Your task to perform on an android device: open app "Google Translate" (install if not already installed) Image 0: 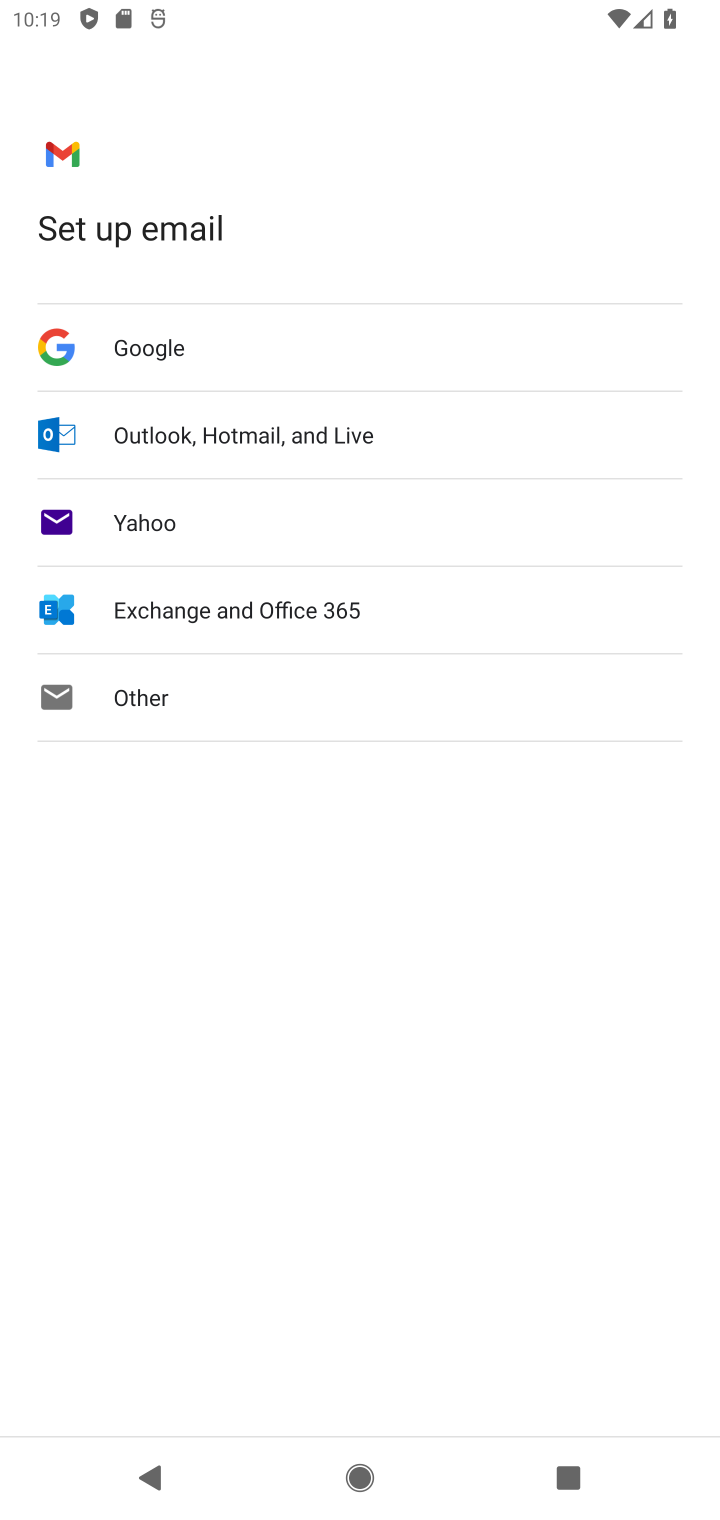
Step 0: press home button
Your task to perform on an android device: open app "Google Translate" (install if not already installed) Image 1: 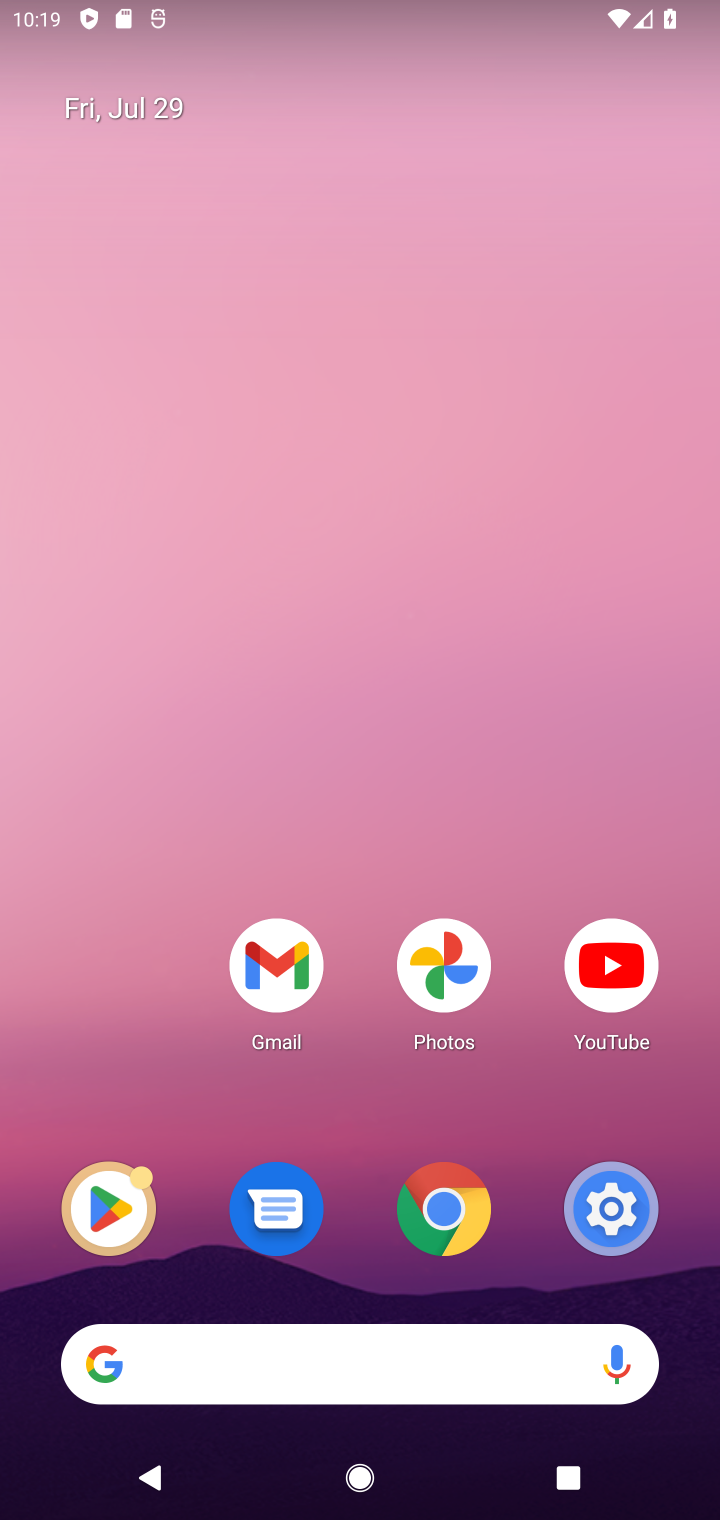
Step 1: drag from (512, 1116) to (391, 258)
Your task to perform on an android device: open app "Google Translate" (install if not already installed) Image 2: 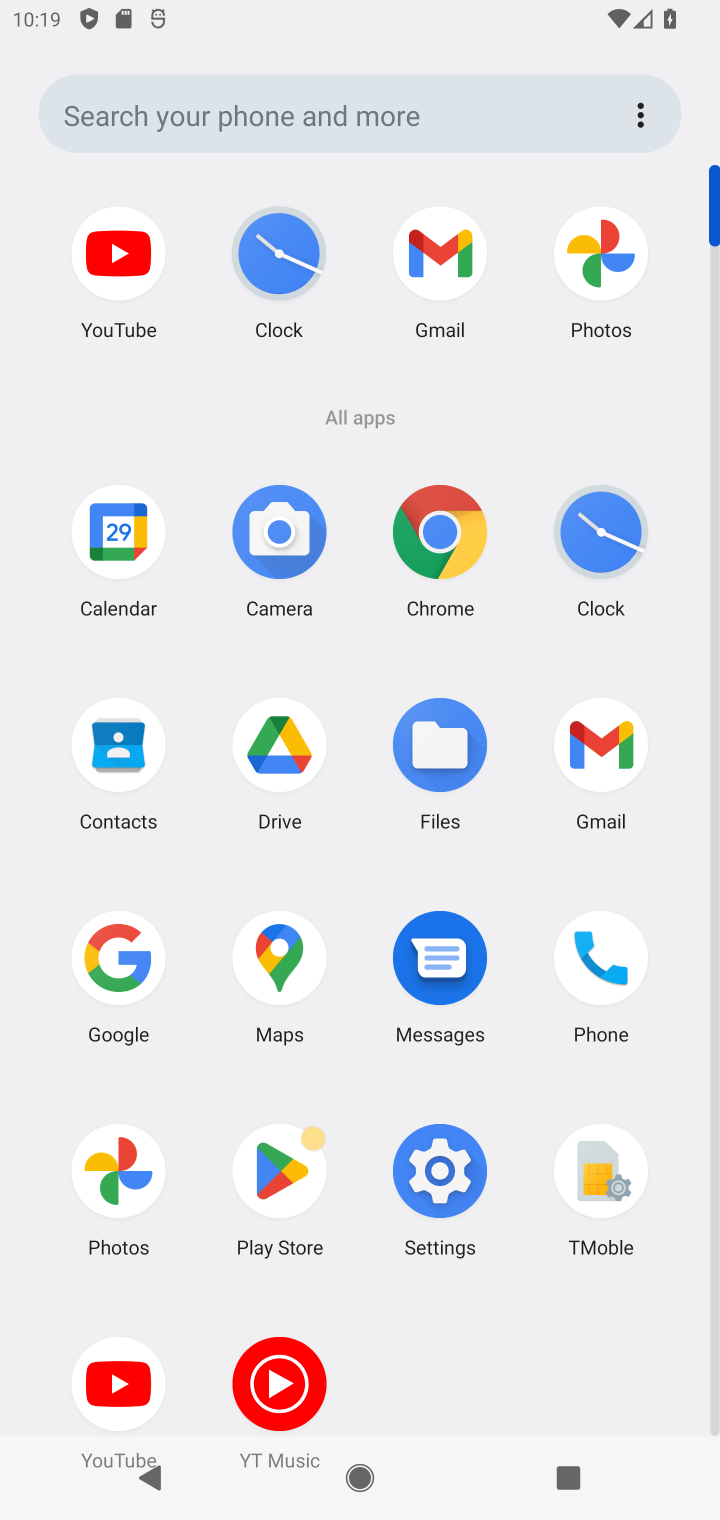
Step 2: click (277, 1166)
Your task to perform on an android device: open app "Google Translate" (install if not already installed) Image 3: 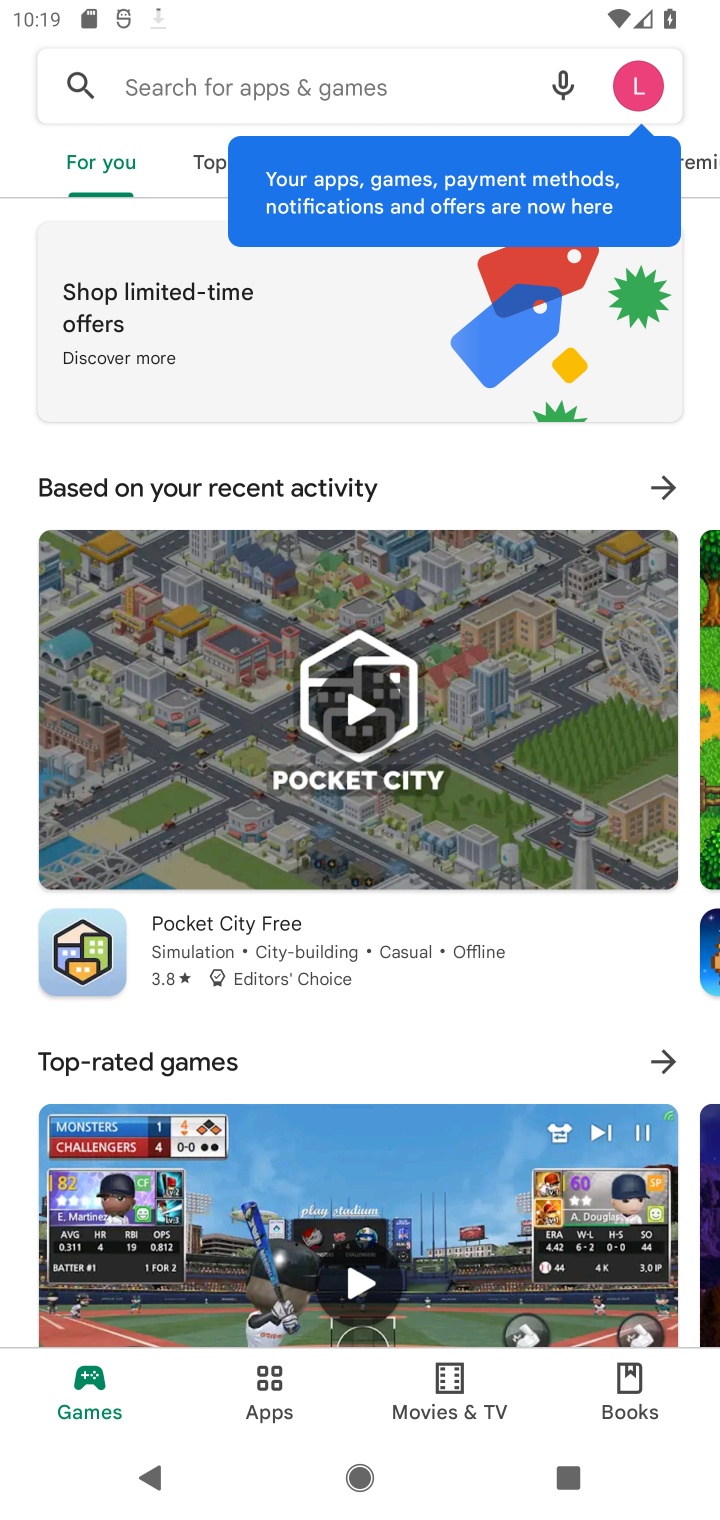
Step 3: click (397, 87)
Your task to perform on an android device: open app "Google Translate" (install if not already installed) Image 4: 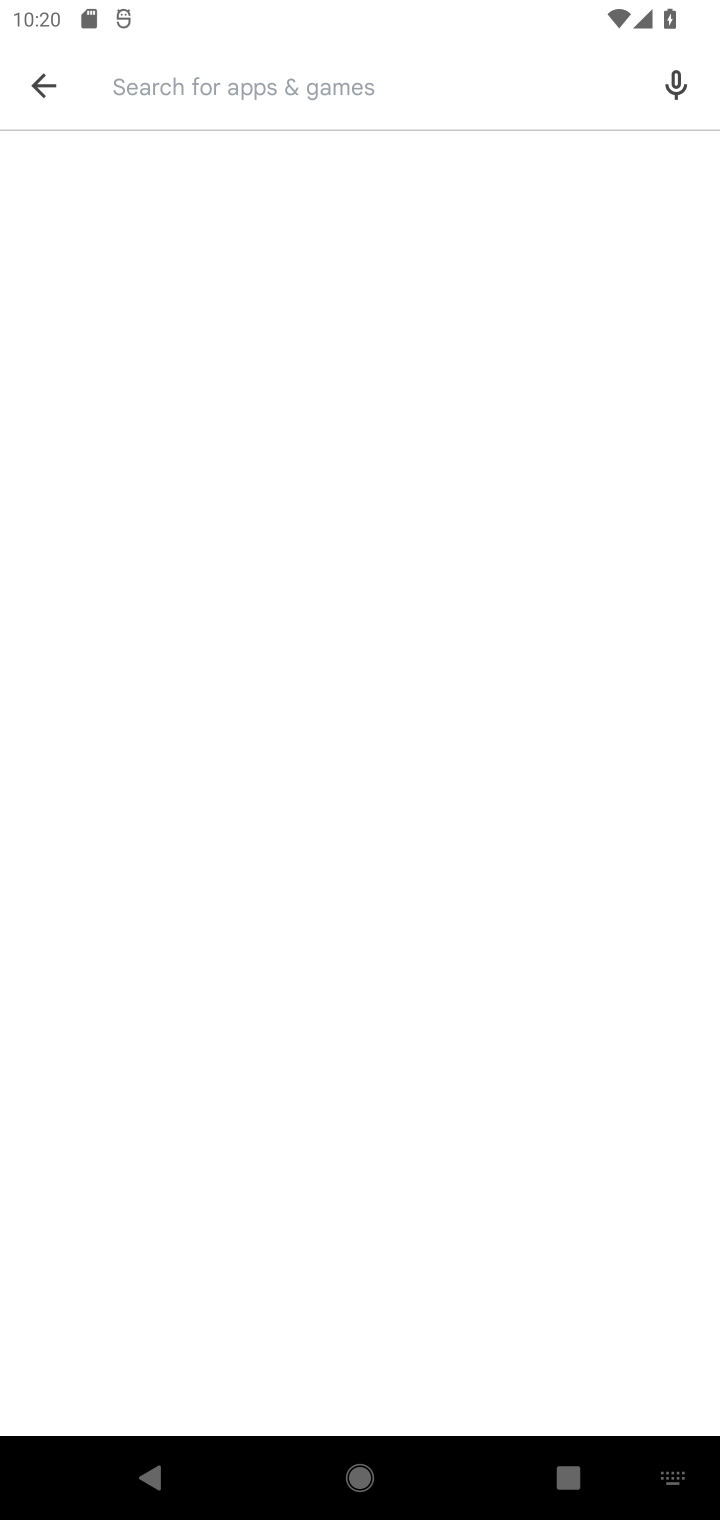
Step 4: type "Google Translate"
Your task to perform on an android device: open app "Google Translate" (install if not already installed) Image 5: 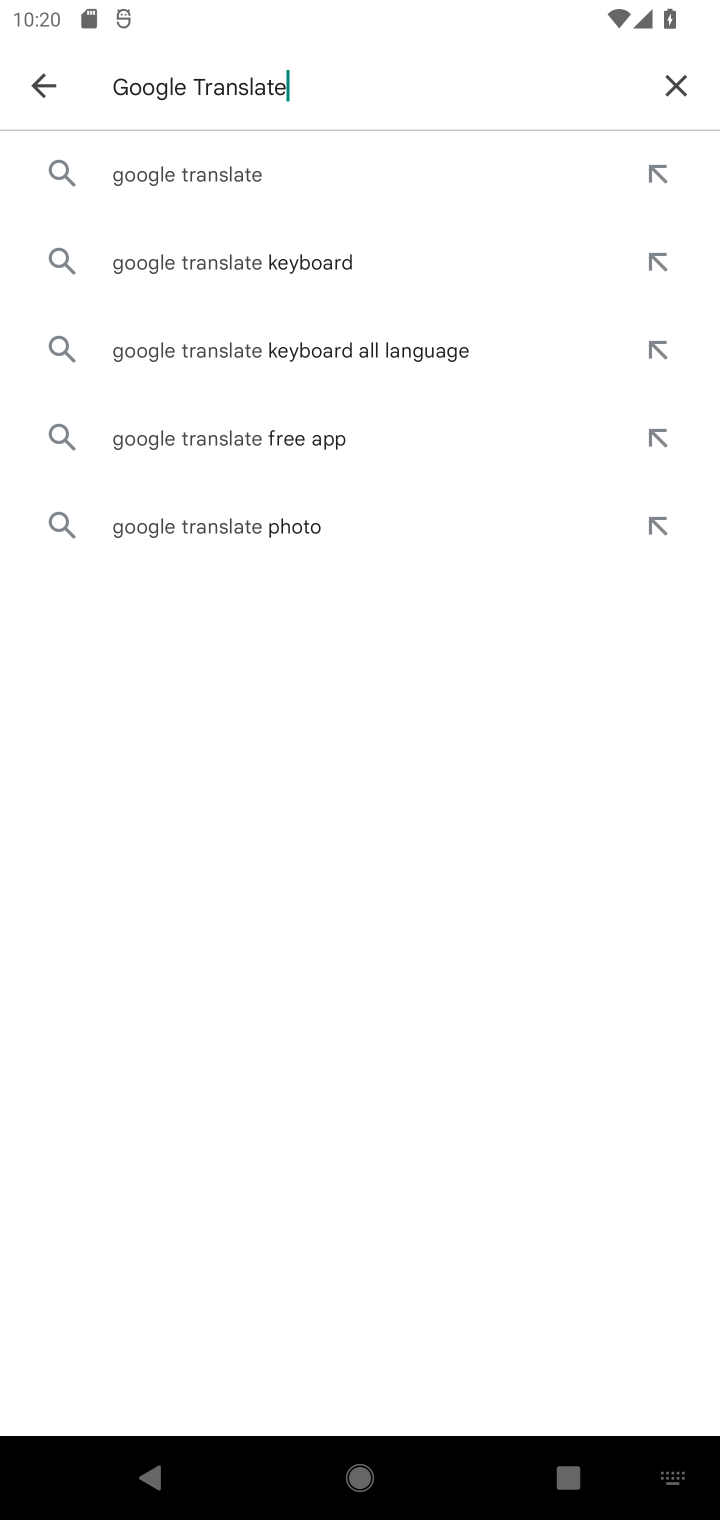
Step 5: press enter
Your task to perform on an android device: open app "Google Translate" (install if not already installed) Image 6: 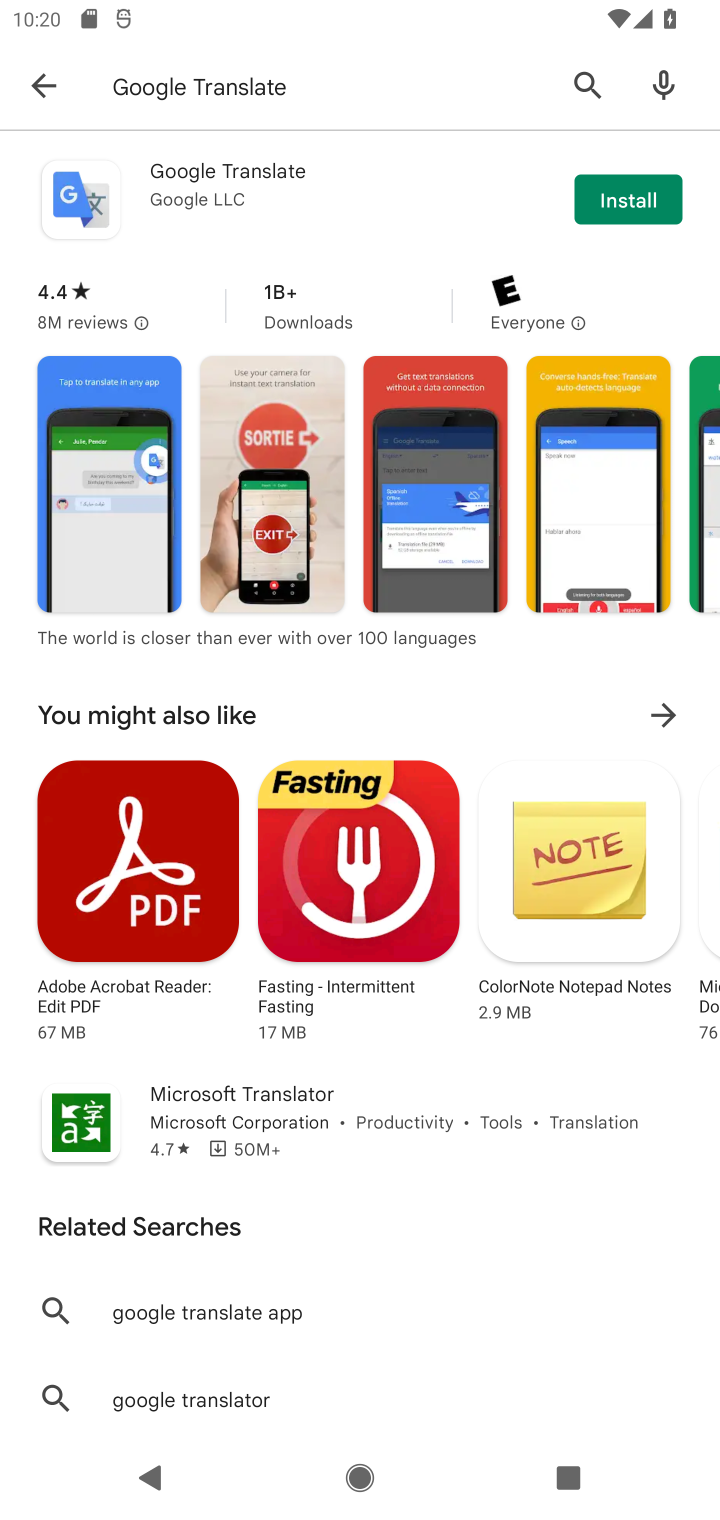
Step 6: click (667, 193)
Your task to perform on an android device: open app "Google Translate" (install if not already installed) Image 7: 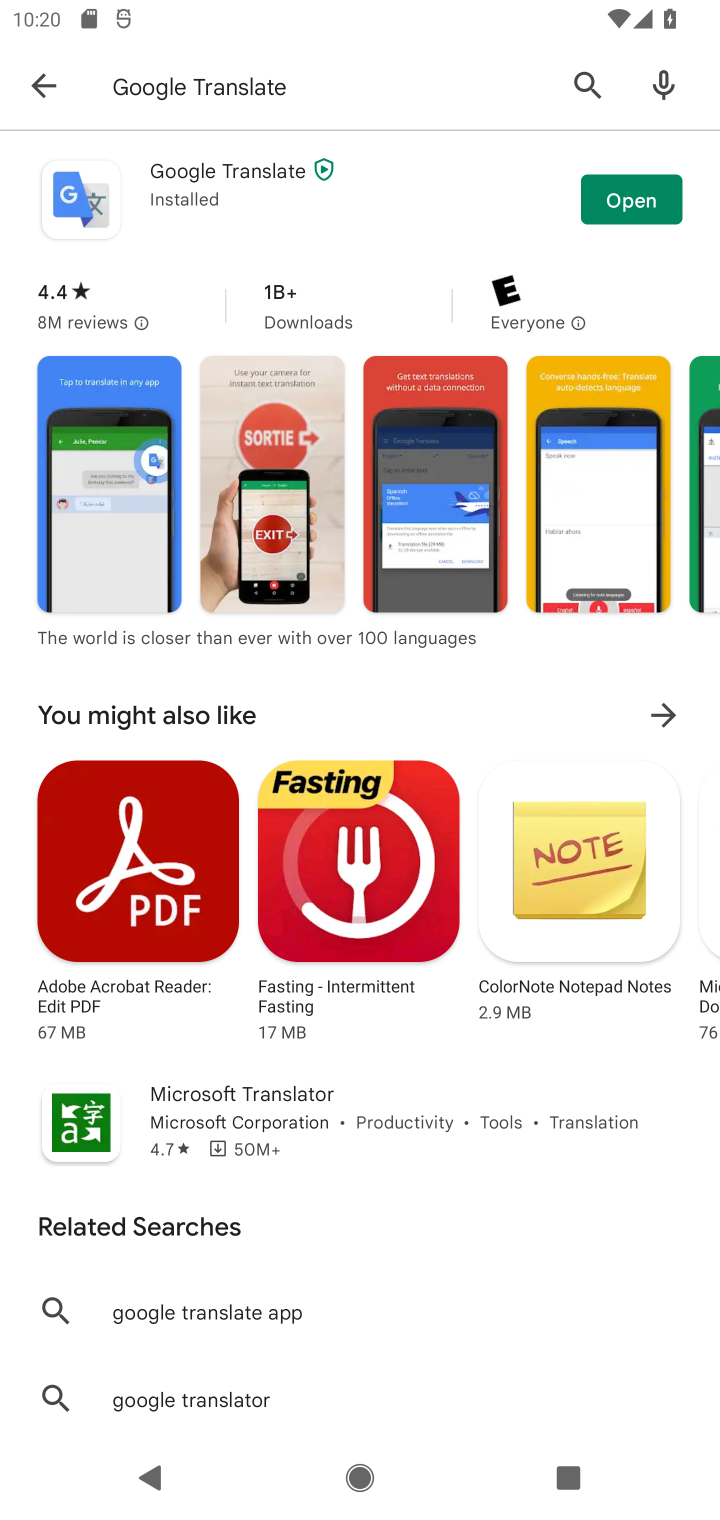
Step 7: click (670, 192)
Your task to perform on an android device: open app "Google Translate" (install if not already installed) Image 8: 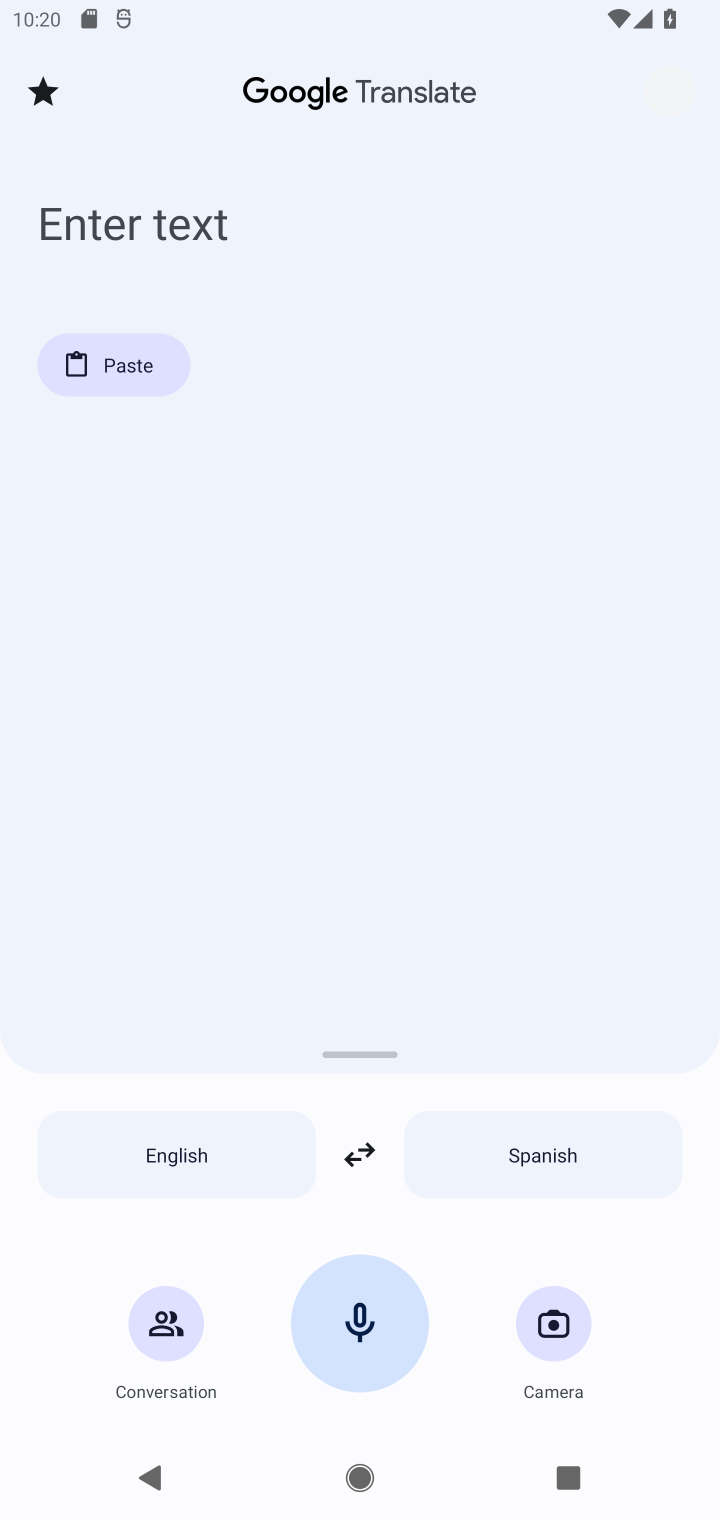
Step 8: task complete